Your task to perform on an android device: star an email in the gmail app Image 0: 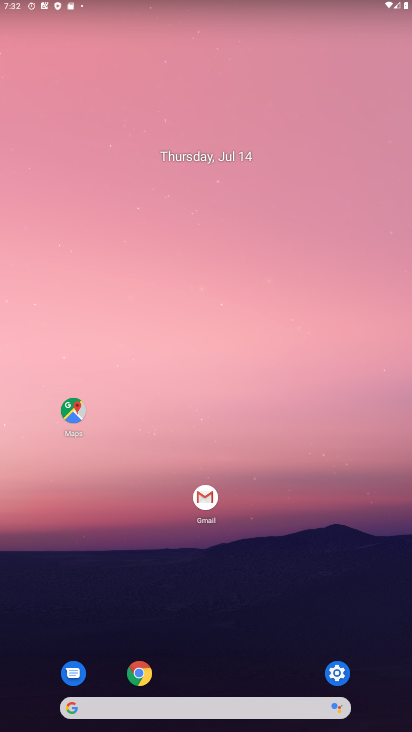
Step 0: click (210, 507)
Your task to perform on an android device: star an email in the gmail app Image 1: 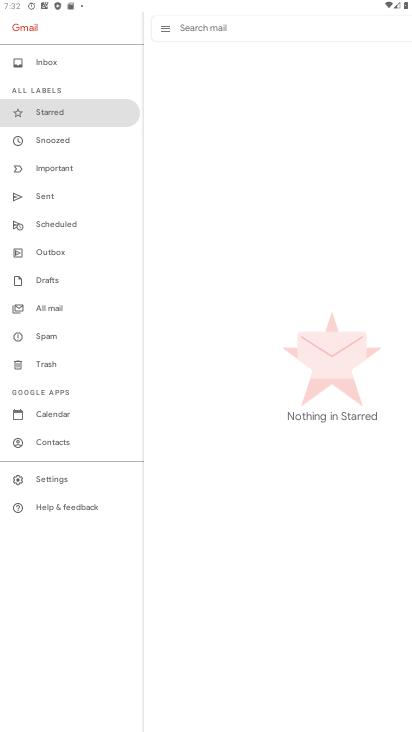
Step 1: click (63, 312)
Your task to perform on an android device: star an email in the gmail app Image 2: 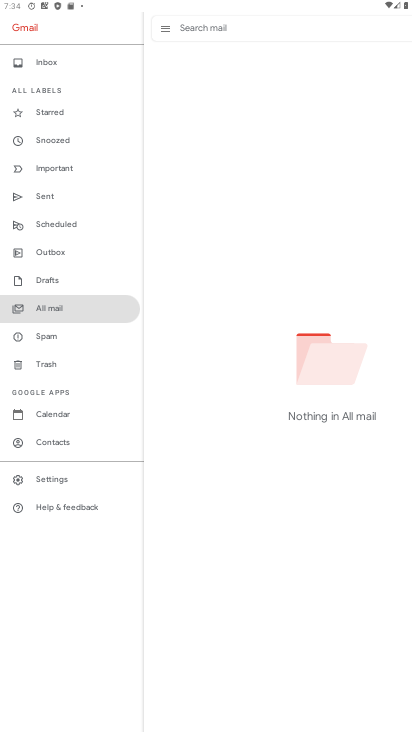
Step 2: task complete